Your task to perform on an android device: Clear the cart on walmart. Search for logitech g903 on walmart, select the first entry, add it to the cart, then select checkout. Image 0: 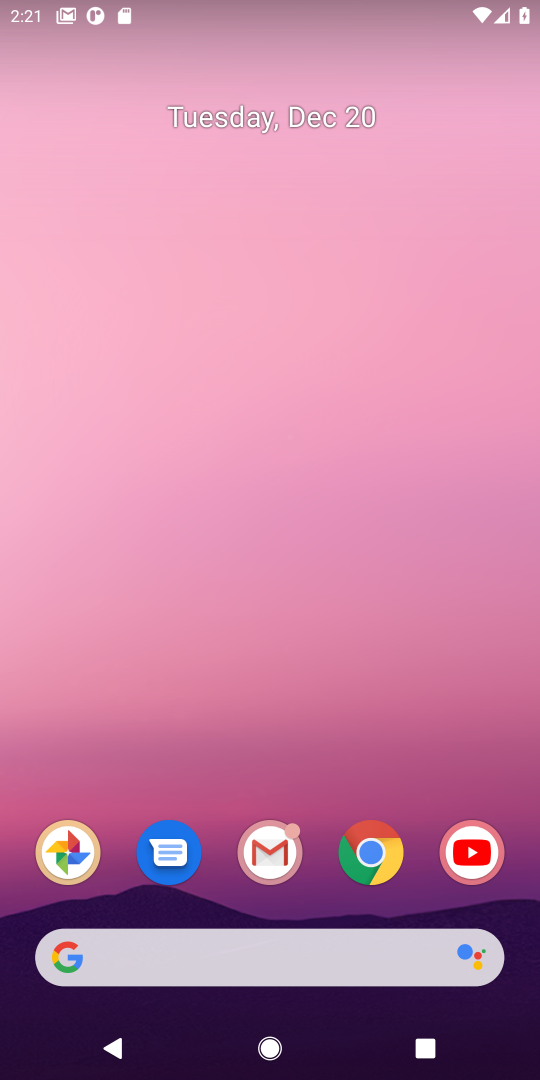
Step 0: click (375, 859)
Your task to perform on an android device: Clear the cart on walmart. Search for logitech g903 on walmart, select the first entry, add it to the cart, then select checkout. Image 1: 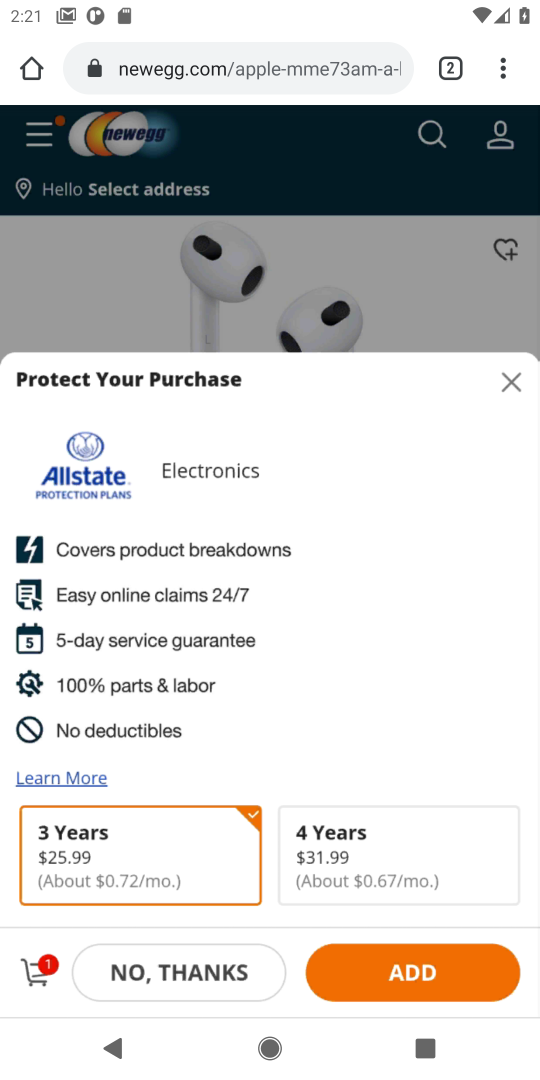
Step 1: click (200, 71)
Your task to perform on an android device: Clear the cart on walmart. Search for logitech g903 on walmart, select the first entry, add it to the cart, then select checkout. Image 2: 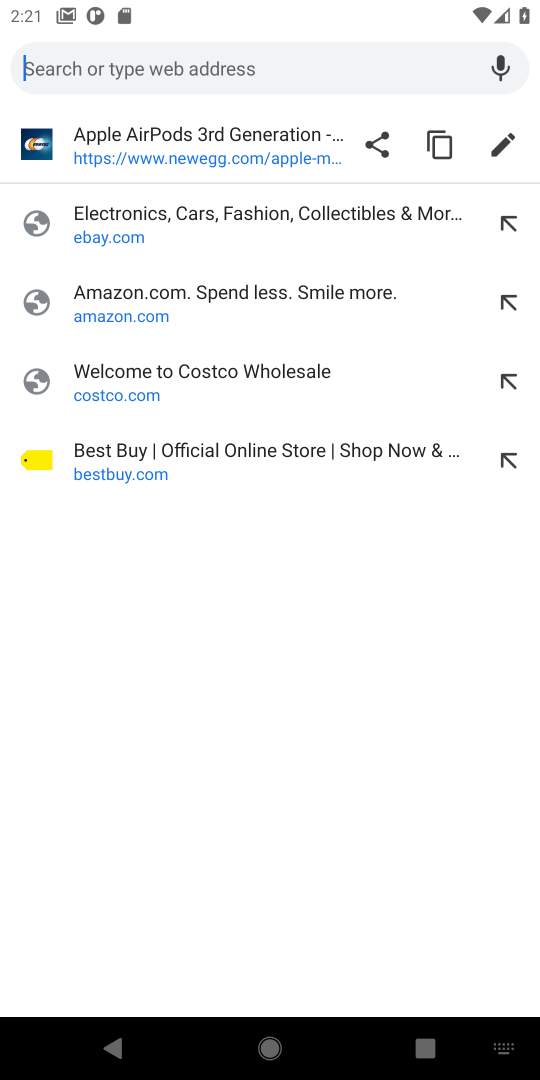
Step 2: type "walmart.com"
Your task to perform on an android device: Clear the cart on walmart. Search for logitech g903 on walmart, select the first entry, add it to the cart, then select checkout. Image 3: 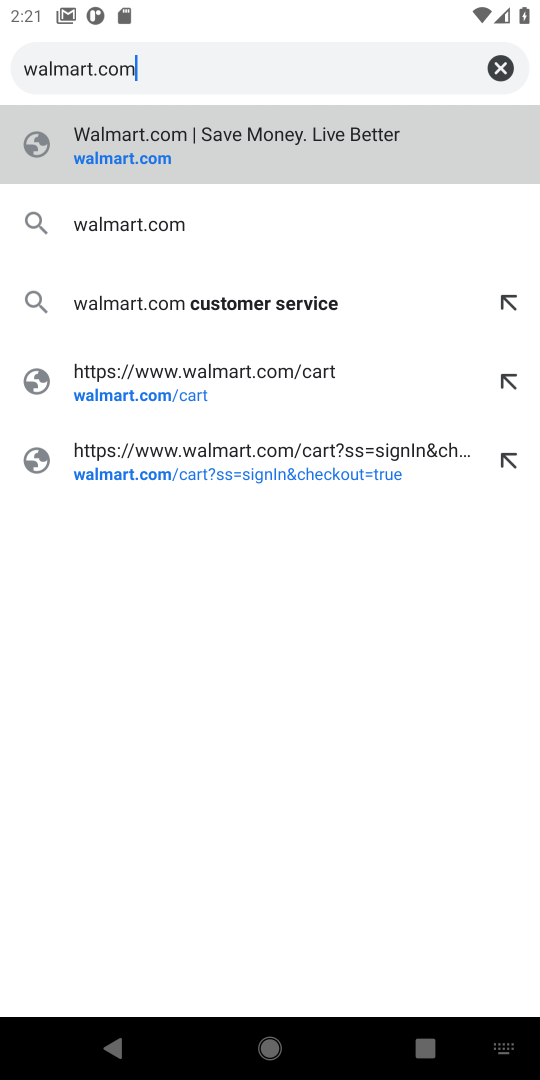
Step 3: click (105, 147)
Your task to perform on an android device: Clear the cart on walmart. Search for logitech g903 on walmart, select the first entry, add it to the cart, then select checkout. Image 4: 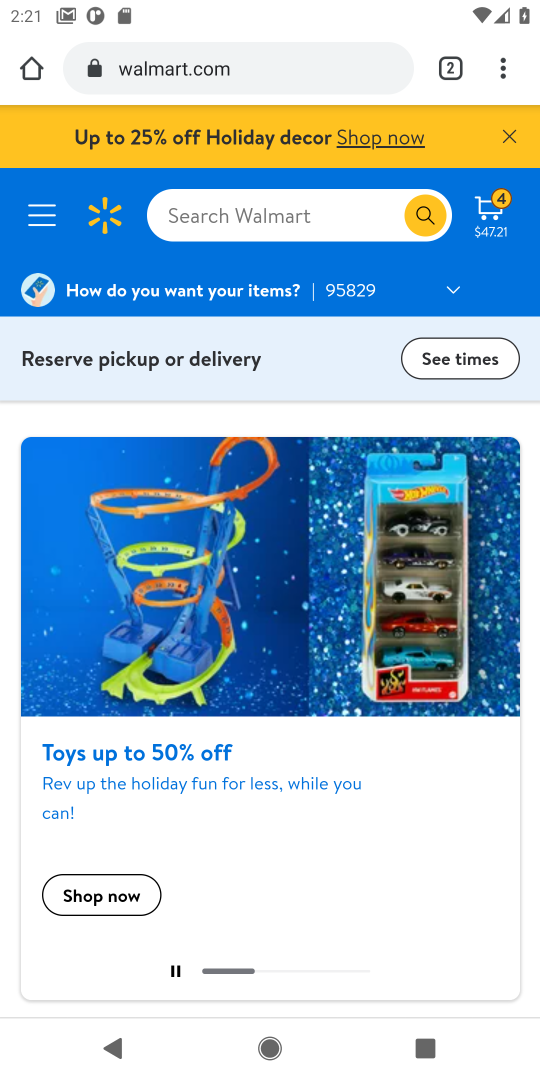
Step 4: click (483, 219)
Your task to perform on an android device: Clear the cart on walmart. Search for logitech g903 on walmart, select the first entry, add it to the cart, then select checkout. Image 5: 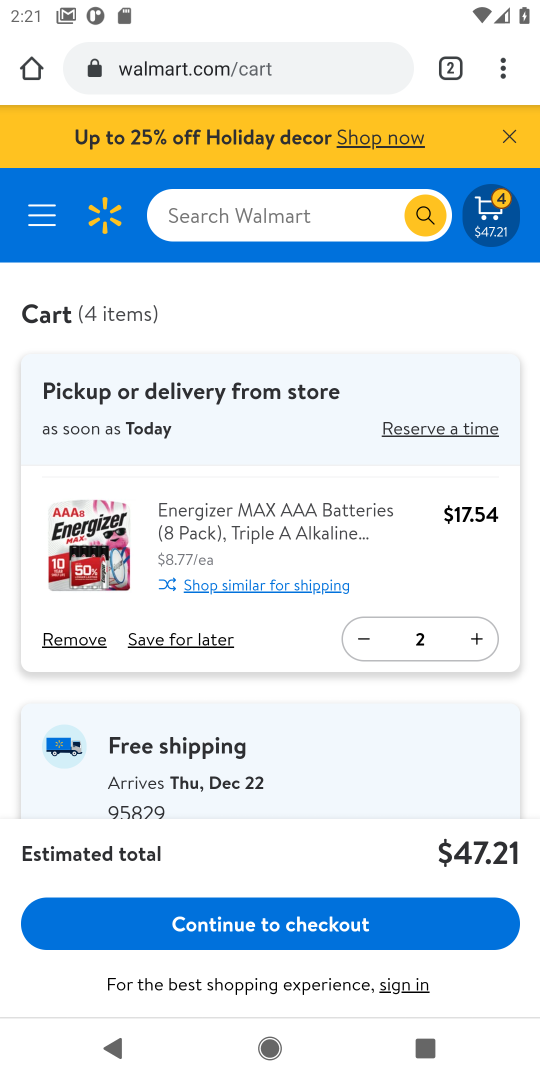
Step 5: click (68, 642)
Your task to perform on an android device: Clear the cart on walmart. Search for logitech g903 on walmart, select the first entry, add it to the cart, then select checkout. Image 6: 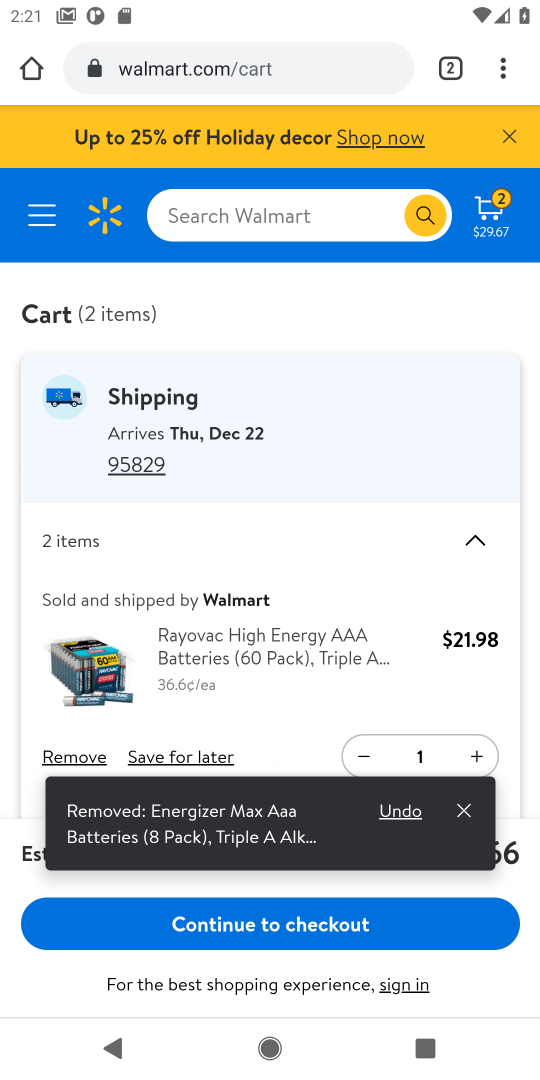
Step 6: drag from (107, 645) to (120, 474)
Your task to perform on an android device: Clear the cart on walmart. Search for logitech g903 on walmart, select the first entry, add it to the cart, then select checkout. Image 7: 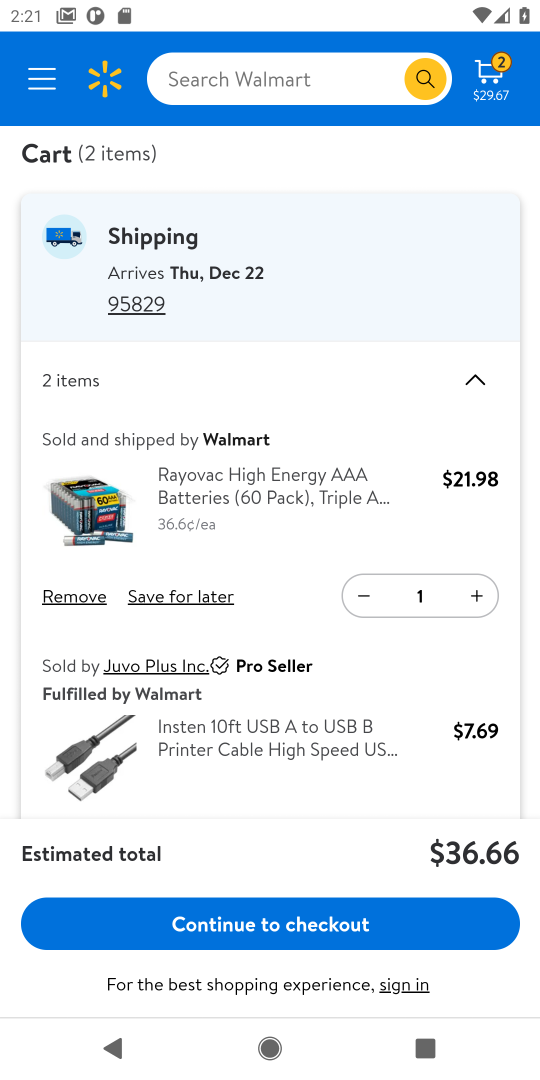
Step 7: click (63, 609)
Your task to perform on an android device: Clear the cart on walmart. Search for logitech g903 on walmart, select the first entry, add it to the cart, then select checkout. Image 8: 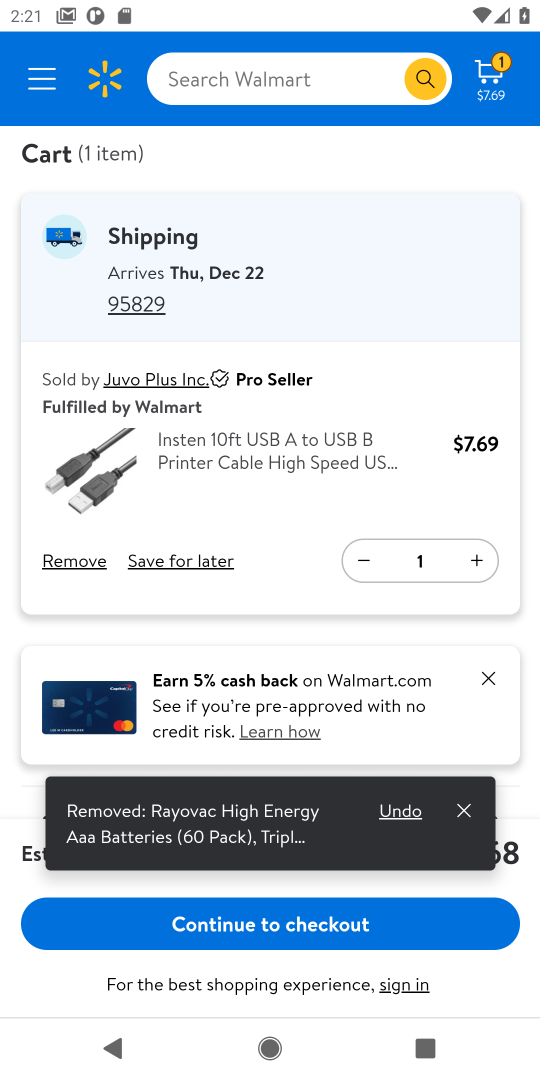
Step 8: click (90, 566)
Your task to perform on an android device: Clear the cart on walmart. Search for logitech g903 on walmart, select the first entry, add it to the cart, then select checkout. Image 9: 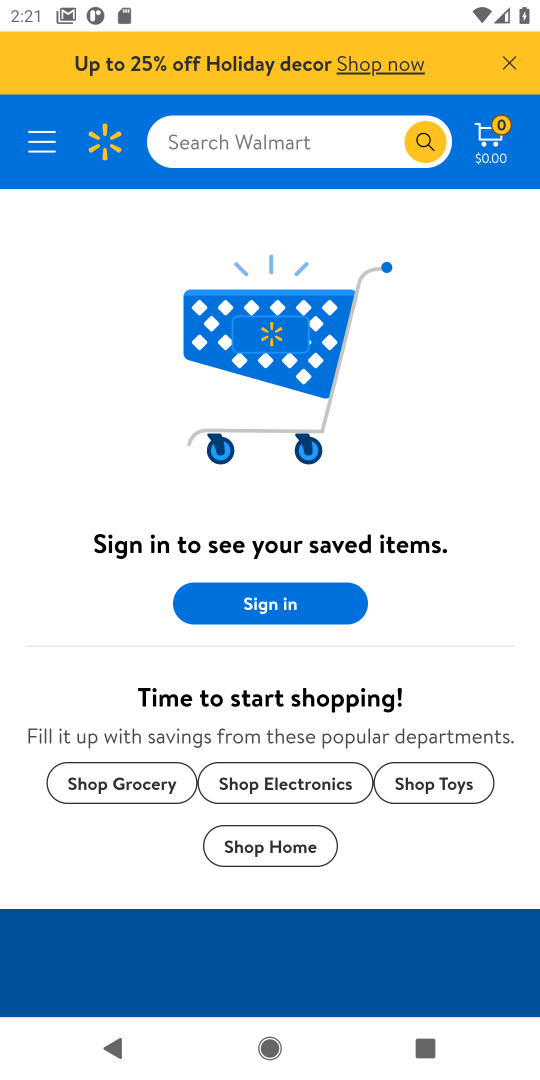
Step 9: click (193, 147)
Your task to perform on an android device: Clear the cart on walmart. Search for logitech g903 on walmart, select the first entry, add it to the cart, then select checkout. Image 10: 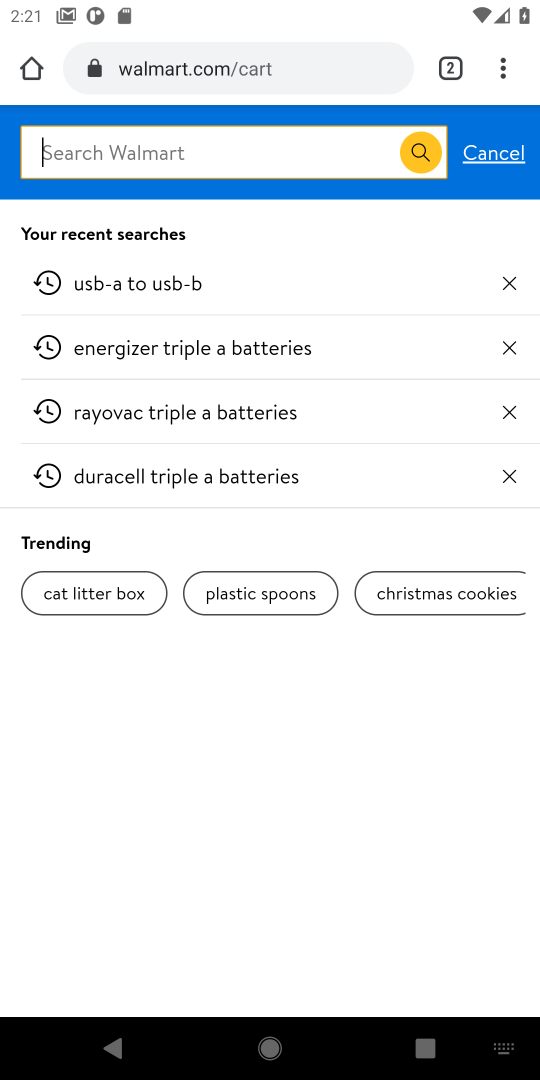
Step 10: type " logitech g903"
Your task to perform on an android device: Clear the cart on walmart. Search for logitech g903 on walmart, select the first entry, add it to the cart, then select checkout. Image 11: 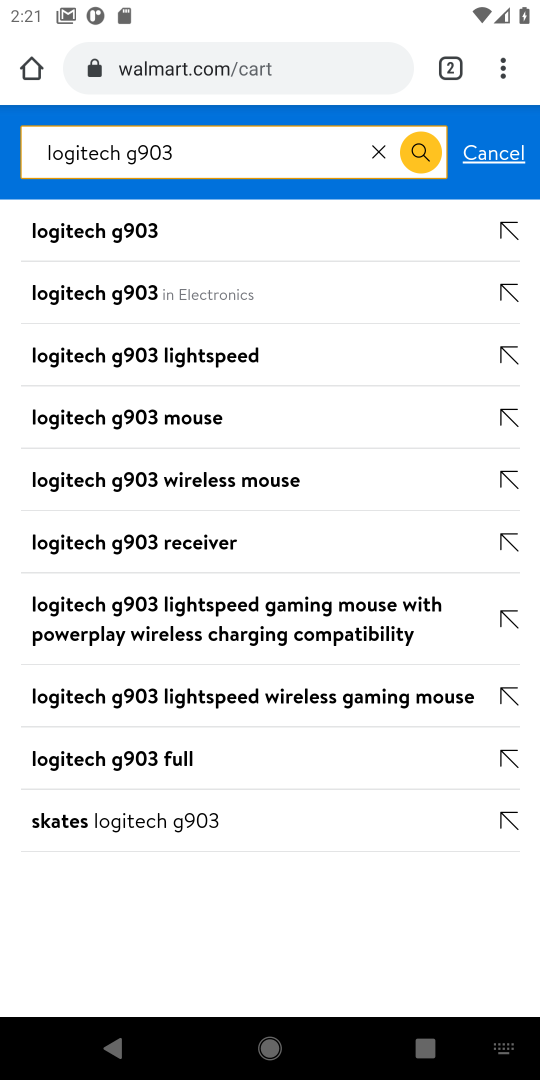
Step 11: click (104, 233)
Your task to perform on an android device: Clear the cart on walmart. Search for logitech g903 on walmart, select the first entry, add it to the cart, then select checkout. Image 12: 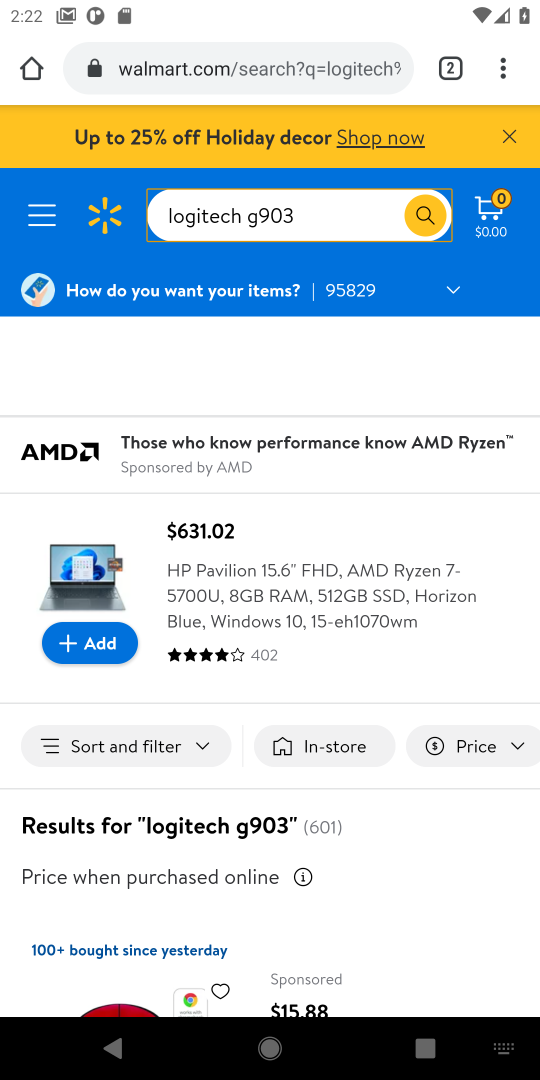
Step 12: click (423, 214)
Your task to perform on an android device: Clear the cart on walmart. Search for logitech g903 on walmart, select the first entry, add it to the cart, then select checkout. Image 13: 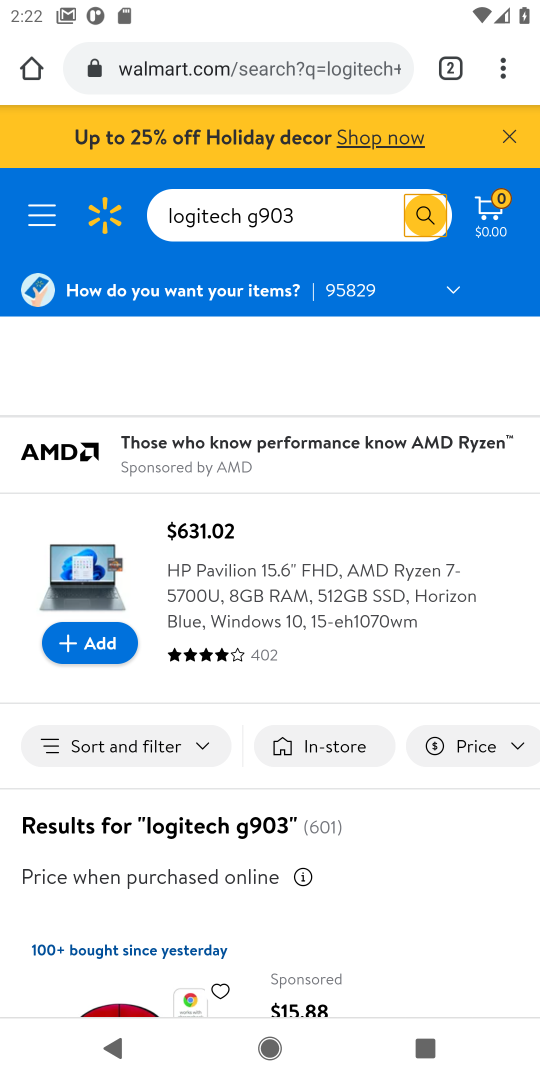
Step 13: task complete